Your task to perform on an android device: find photos in the google photos app Image 0: 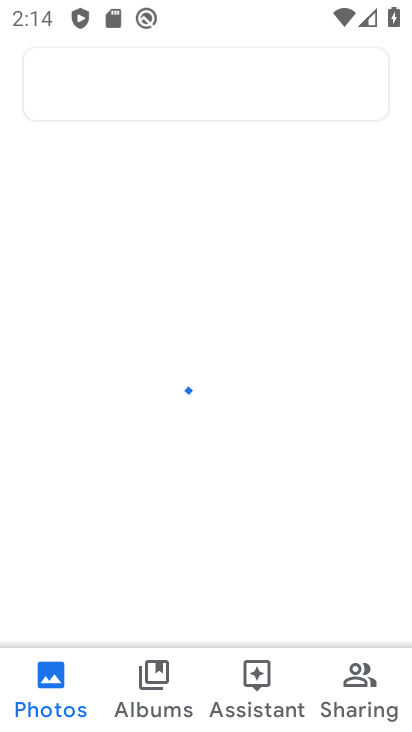
Step 0: press home button
Your task to perform on an android device: find photos in the google photos app Image 1: 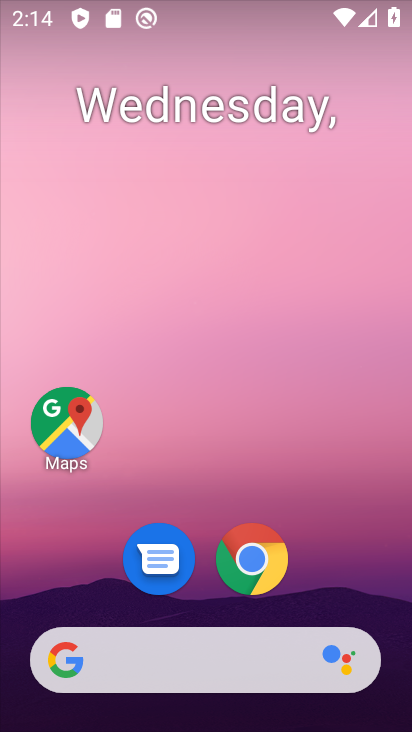
Step 1: drag from (371, 566) to (390, 165)
Your task to perform on an android device: find photos in the google photos app Image 2: 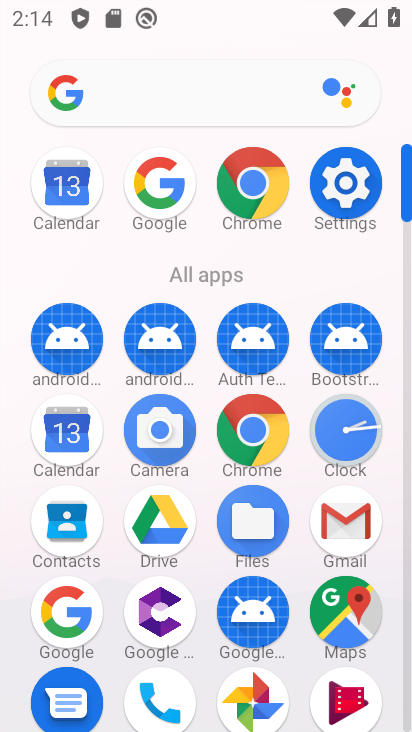
Step 2: drag from (393, 482) to (400, 258)
Your task to perform on an android device: find photos in the google photos app Image 3: 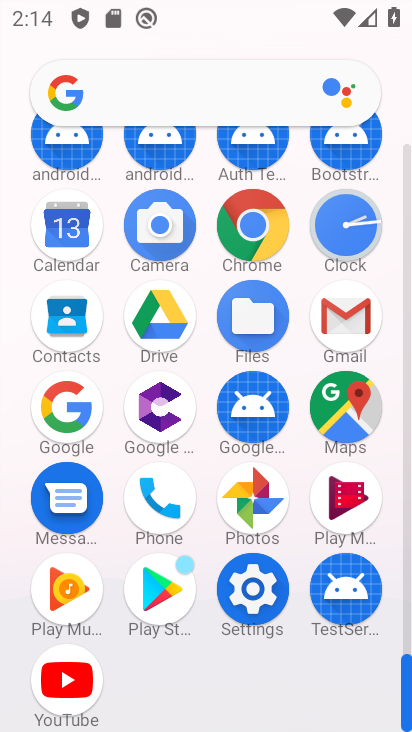
Step 3: click (263, 512)
Your task to perform on an android device: find photos in the google photos app Image 4: 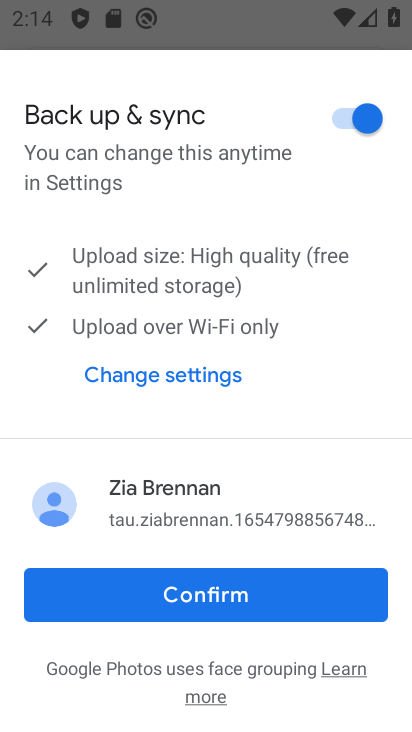
Step 4: click (348, 589)
Your task to perform on an android device: find photos in the google photos app Image 5: 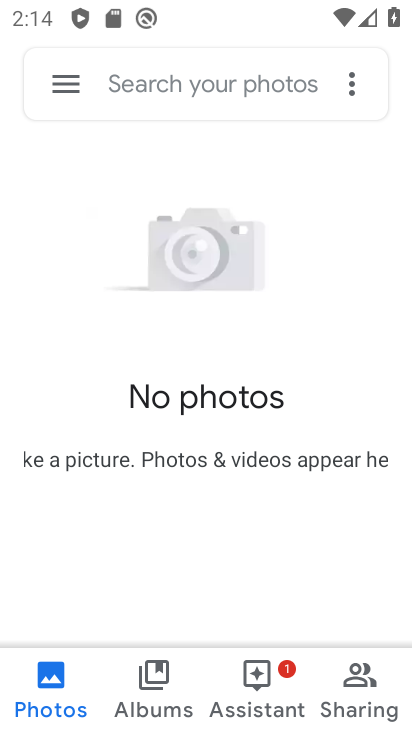
Step 5: task complete